Your task to perform on an android device: Go to display settings Image 0: 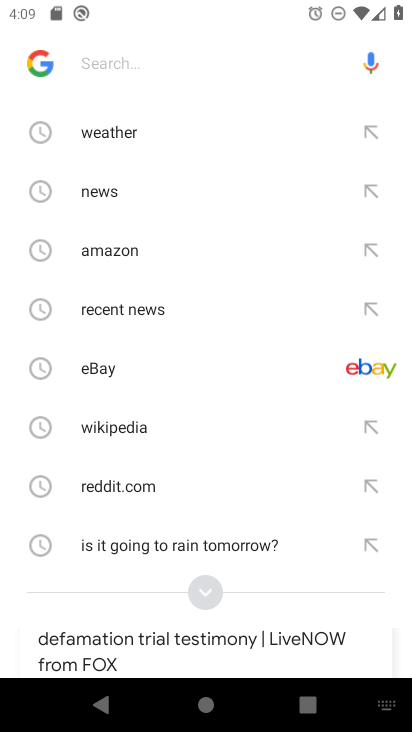
Step 0: press home button
Your task to perform on an android device: Go to display settings Image 1: 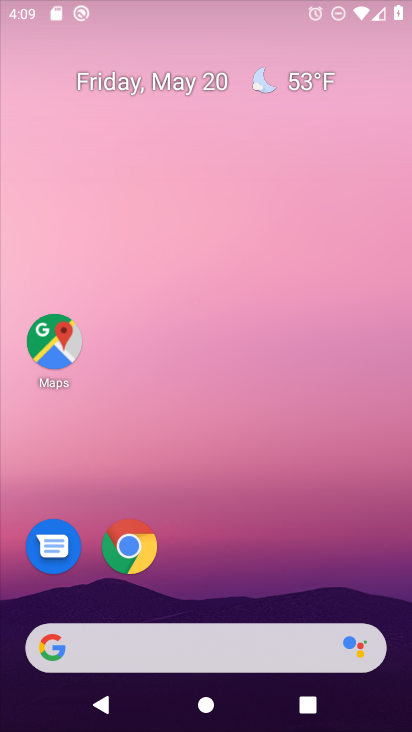
Step 1: drag from (295, 505) to (257, 73)
Your task to perform on an android device: Go to display settings Image 2: 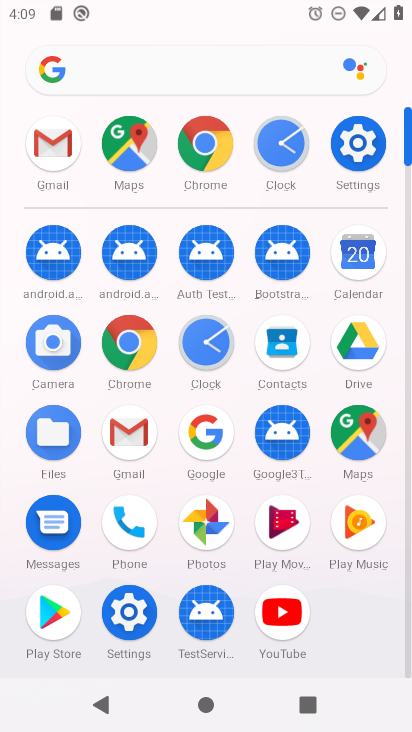
Step 2: click (362, 140)
Your task to perform on an android device: Go to display settings Image 3: 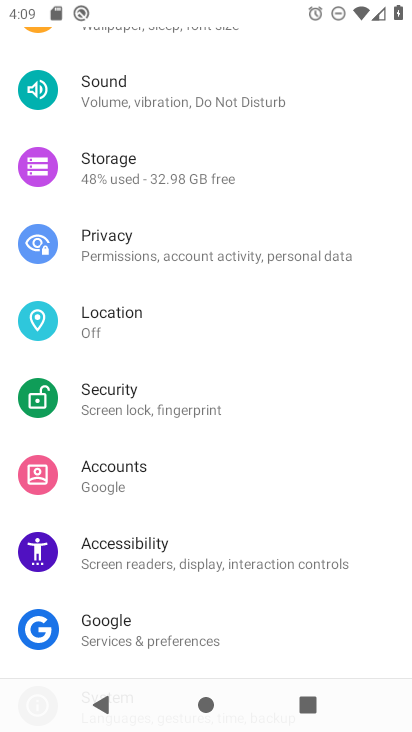
Step 3: drag from (183, 293) to (211, 709)
Your task to perform on an android device: Go to display settings Image 4: 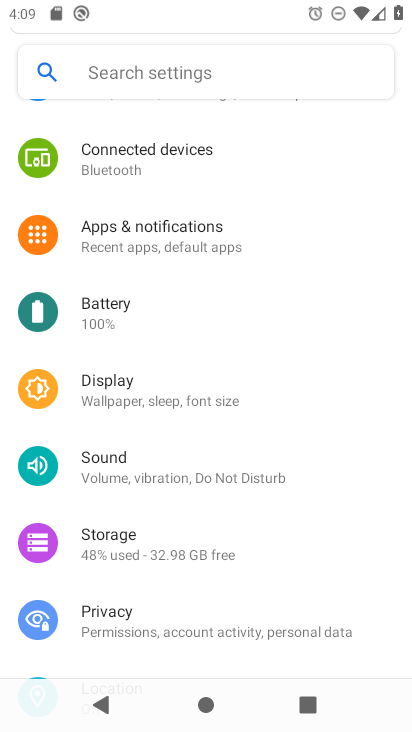
Step 4: click (116, 380)
Your task to perform on an android device: Go to display settings Image 5: 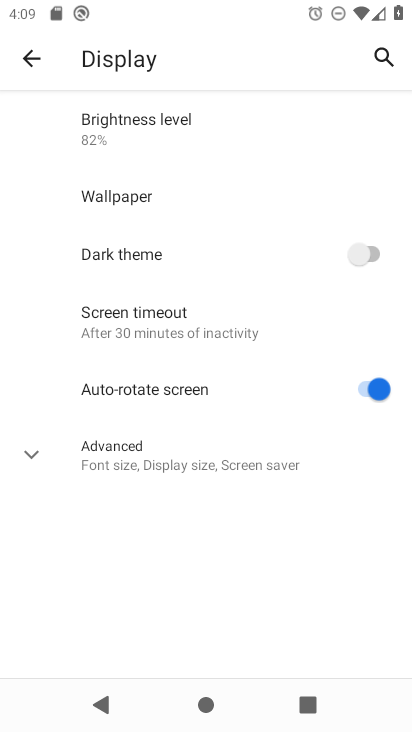
Step 5: task complete